Your task to perform on an android device: Open the calendar app, open the side menu, and click the "Day" option Image 0: 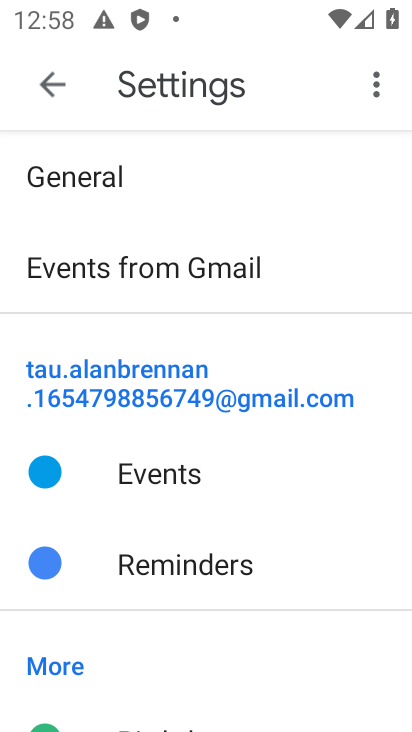
Step 0: press home button
Your task to perform on an android device: Open the calendar app, open the side menu, and click the "Day" option Image 1: 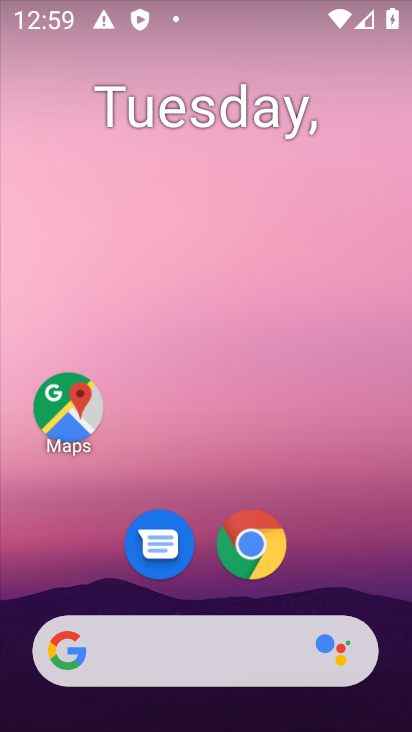
Step 1: click (199, 117)
Your task to perform on an android device: Open the calendar app, open the side menu, and click the "Day" option Image 2: 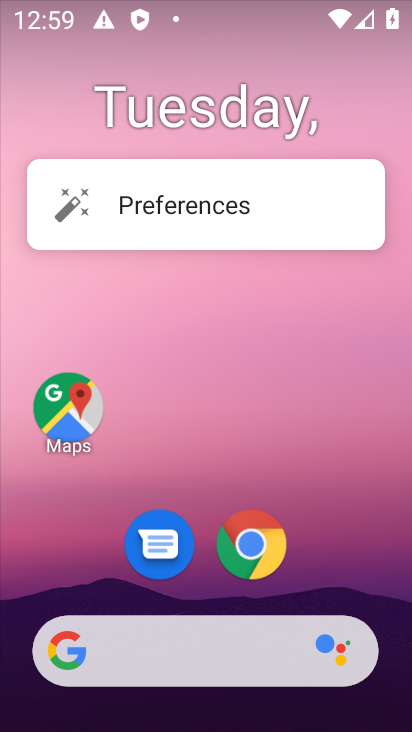
Step 2: click (199, 115)
Your task to perform on an android device: Open the calendar app, open the side menu, and click the "Day" option Image 3: 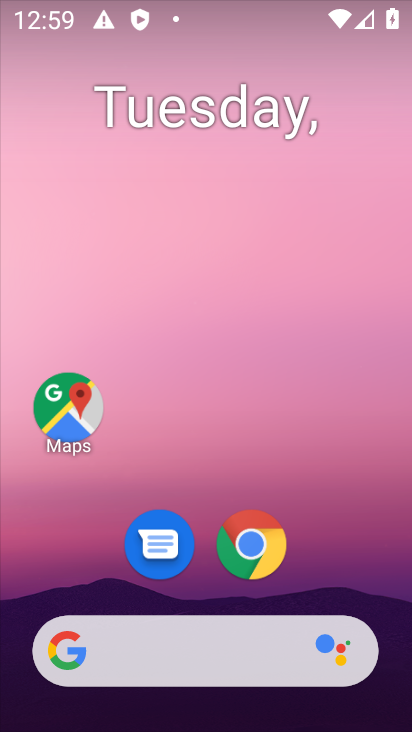
Step 3: click (199, 107)
Your task to perform on an android device: Open the calendar app, open the side menu, and click the "Day" option Image 4: 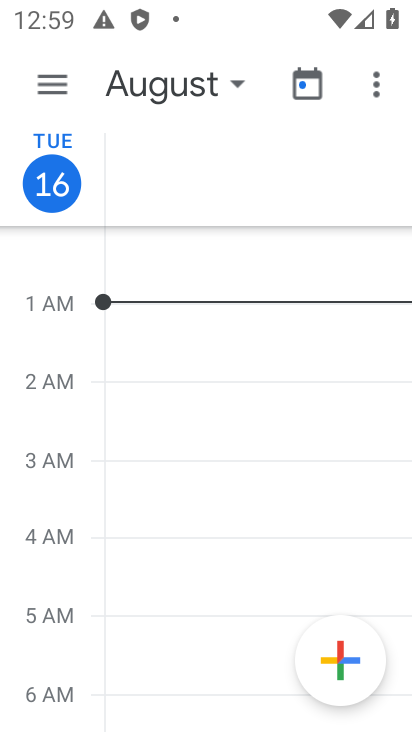
Step 4: click (45, 75)
Your task to perform on an android device: Open the calendar app, open the side menu, and click the "Day" option Image 5: 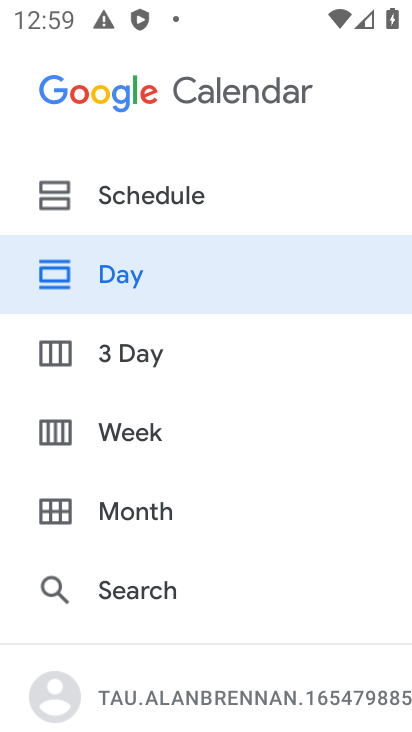
Step 5: click (116, 282)
Your task to perform on an android device: Open the calendar app, open the side menu, and click the "Day" option Image 6: 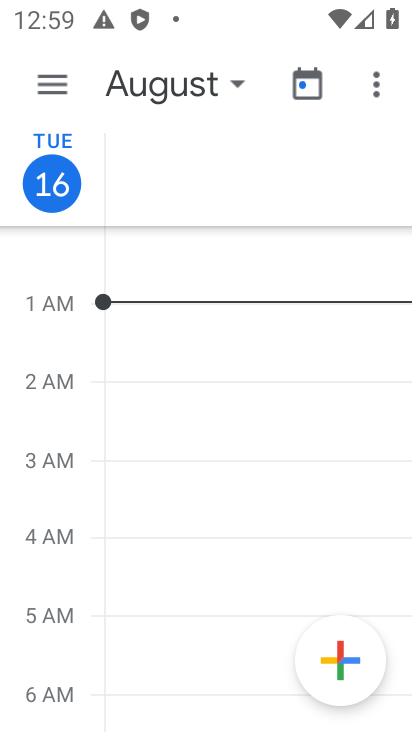
Step 6: task complete